Your task to perform on an android device: turn off improve location accuracy Image 0: 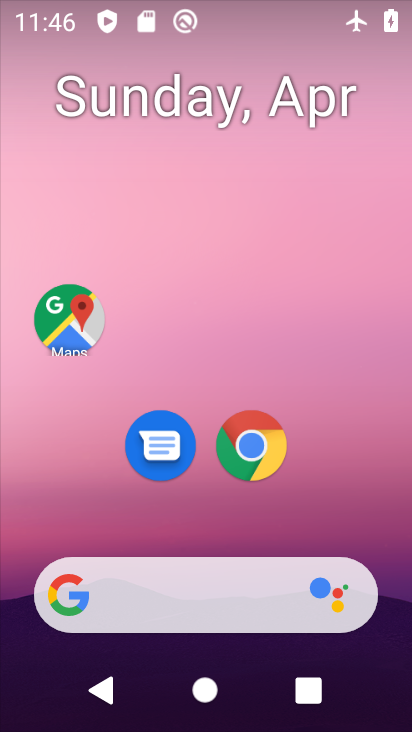
Step 0: drag from (329, 516) to (257, 93)
Your task to perform on an android device: turn off improve location accuracy Image 1: 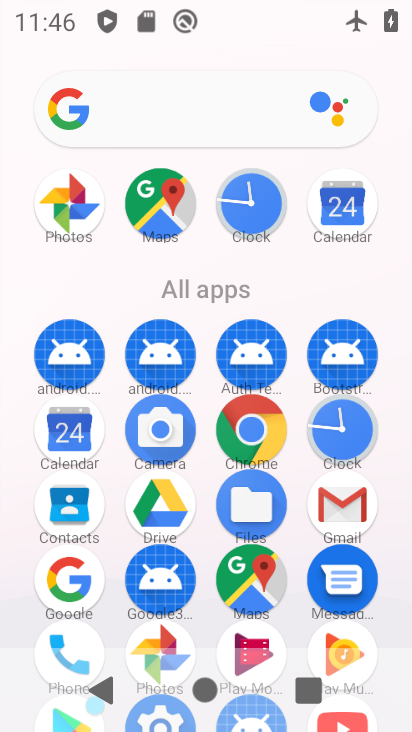
Step 1: drag from (165, 272) to (134, 9)
Your task to perform on an android device: turn off improve location accuracy Image 2: 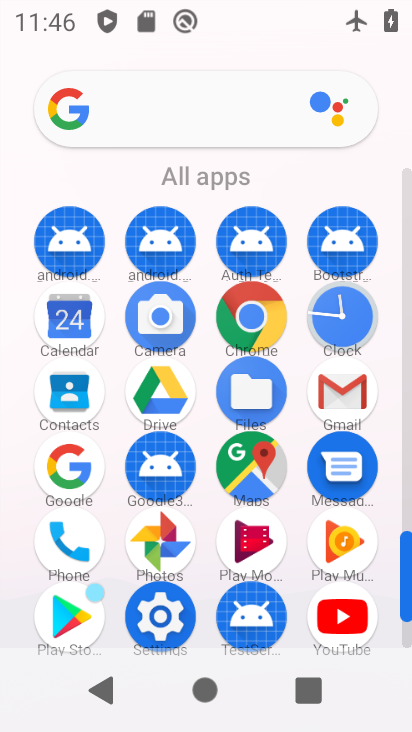
Step 2: click (164, 645)
Your task to perform on an android device: turn off improve location accuracy Image 3: 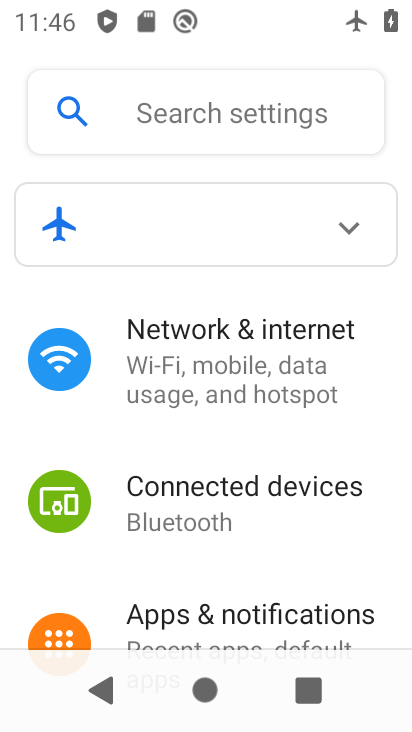
Step 3: drag from (193, 553) to (121, 186)
Your task to perform on an android device: turn off improve location accuracy Image 4: 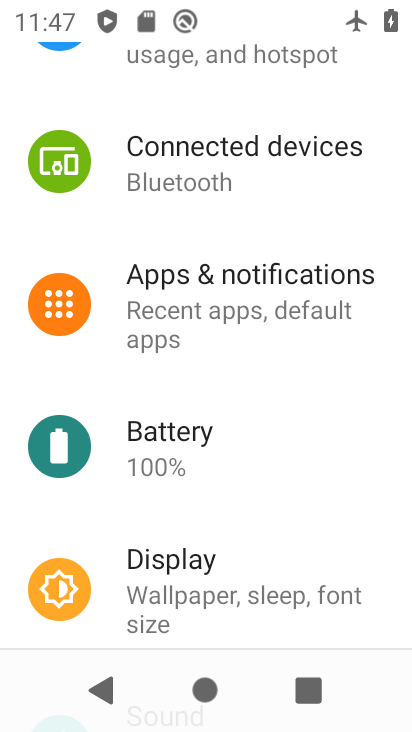
Step 4: drag from (225, 571) to (120, 27)
Your task to perform on an android device: turn off improve location accuracy Image 5: 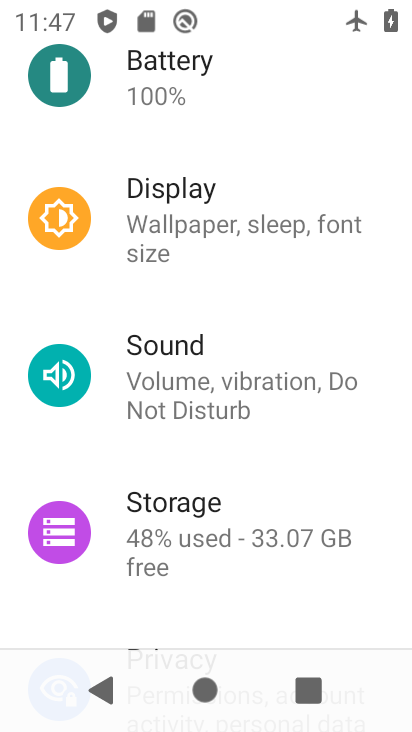
Step 5: drag from (231, 597) to (175, 117)
Your task to perform on an android device: turn off improve location accuracy Image 6: 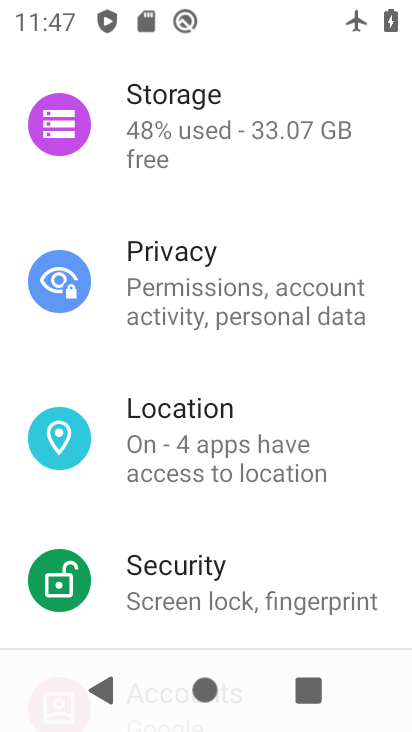
Step 6: click (197, 459)
Your task to perform on an android device: turn off improve location accuracy Image 7: 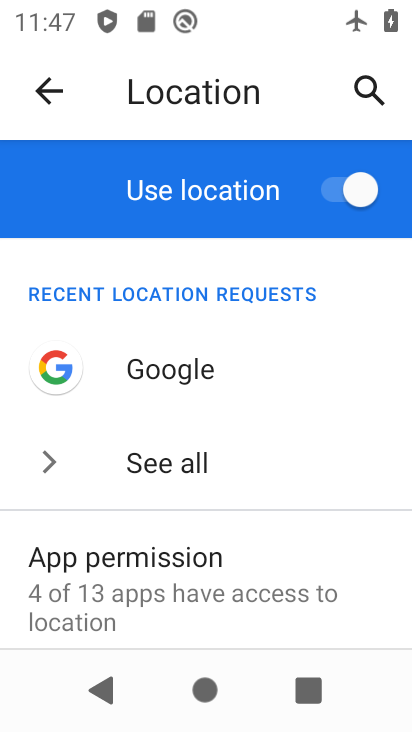
Step 7: drag from (142, 586) to (172, 234)
Your task to perform on an android device: turn off improve location accuracy Image 8: 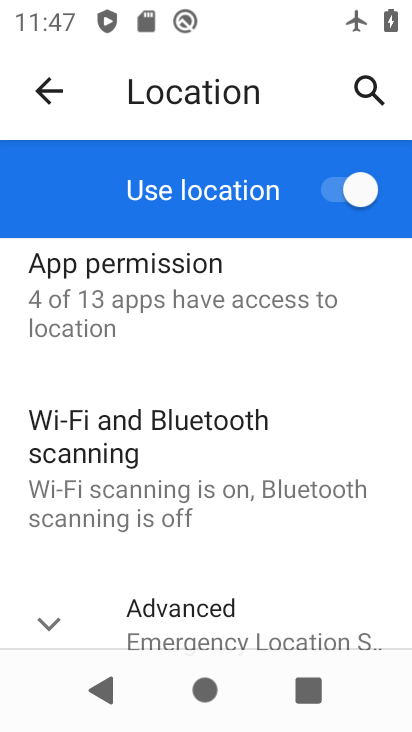
Step 8: click (209, 600)
Your task to perform on an android device: turn off improve location accuracy Image 9: 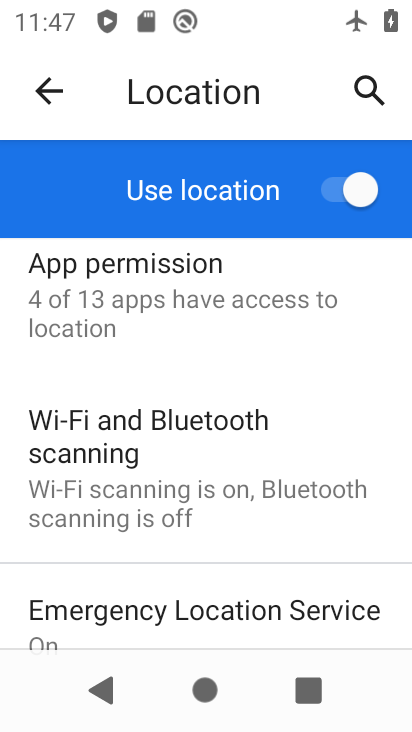
Step 9: drag from (175, 618) to (182, 331)
Your task to perform on an android device: turn off improve location accuracy Image 10: 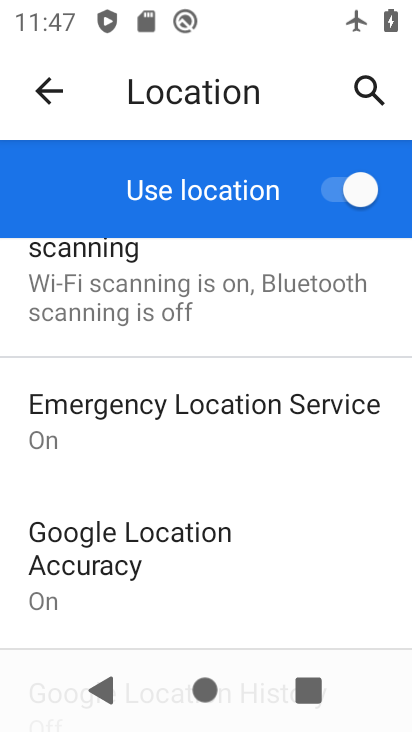
Step 10: click (131, 553)
Your task to perform on an android device: turn off improve location accuracy Image 11: 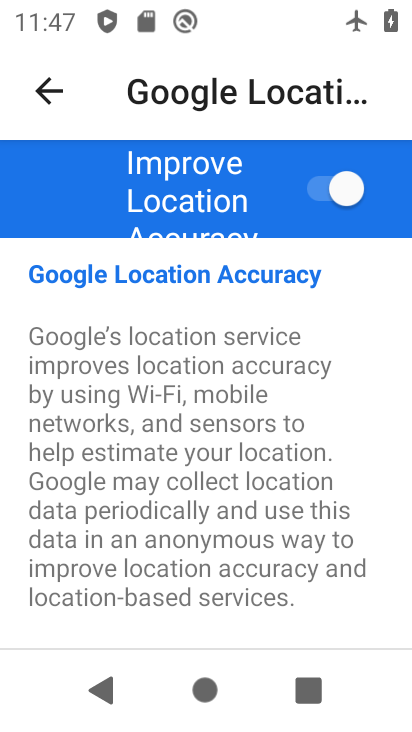
Step 11: click (328, 198)
Your task to perform on an android device: turn off improve location accuracy Image 12: 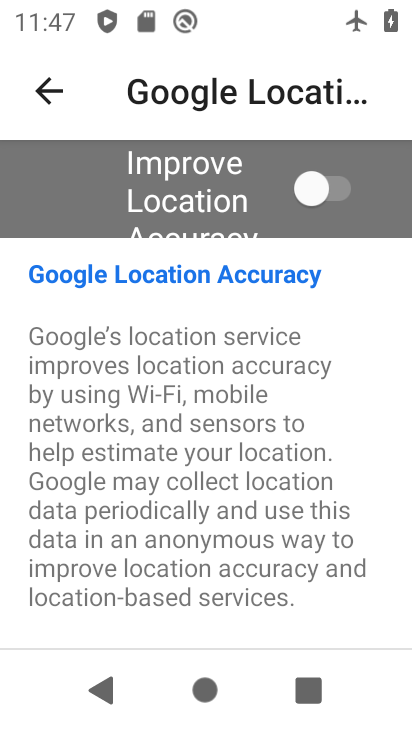
Step 12: task complete